Your task to perform on an android device: open app "PlayWell" (install if not already installed) Image 0: 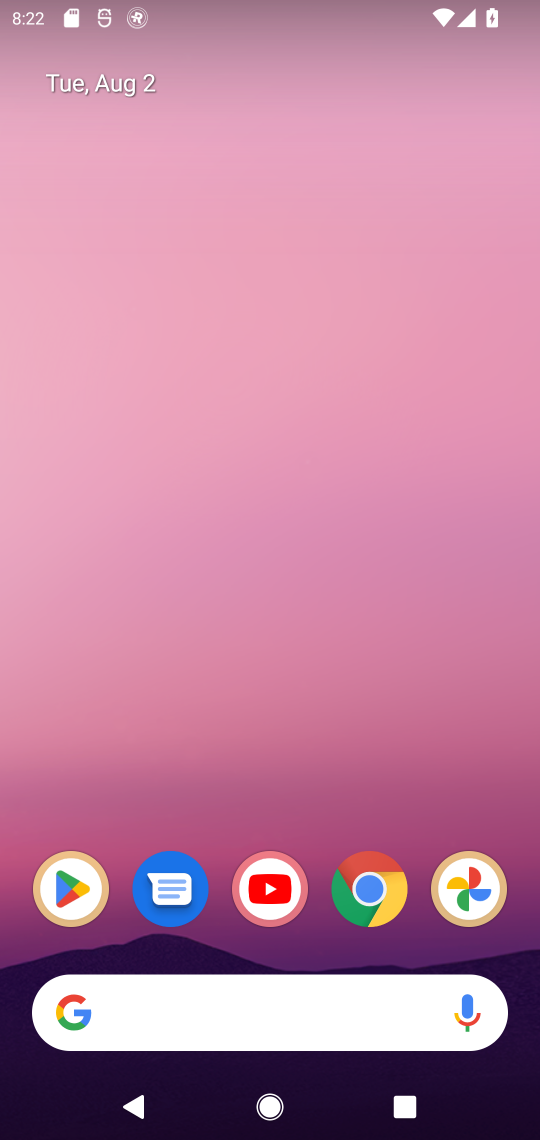
Step 0: click (76, 895)
Your task to perform on an android device: open app "PlayWell" (install if not already installed) Image 1: 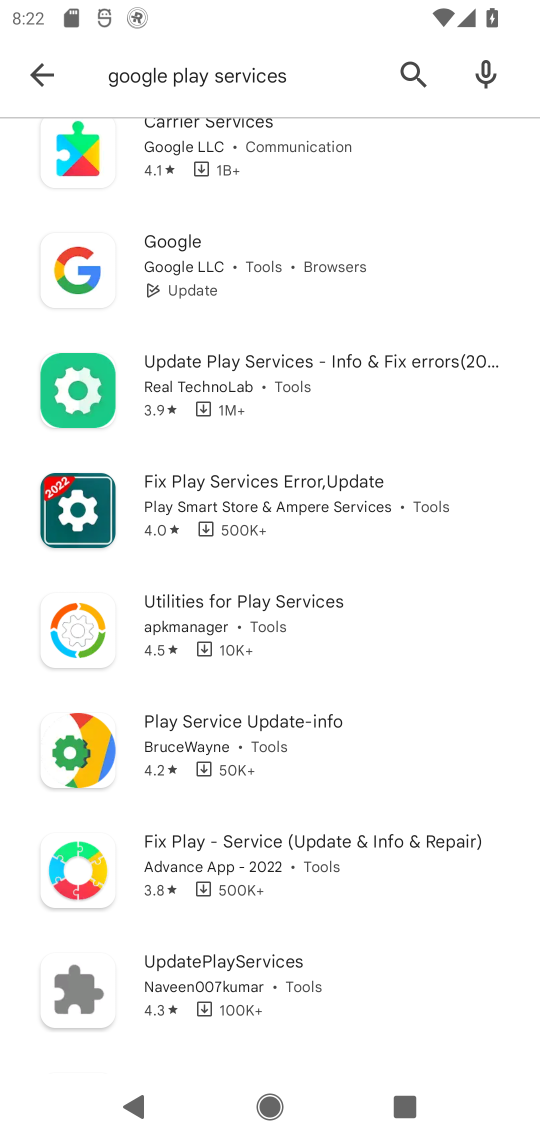
Step 1: click (410, 66)
Your task to perform on an android device: open app "PlayWell" (install if not already installed) Image 2: 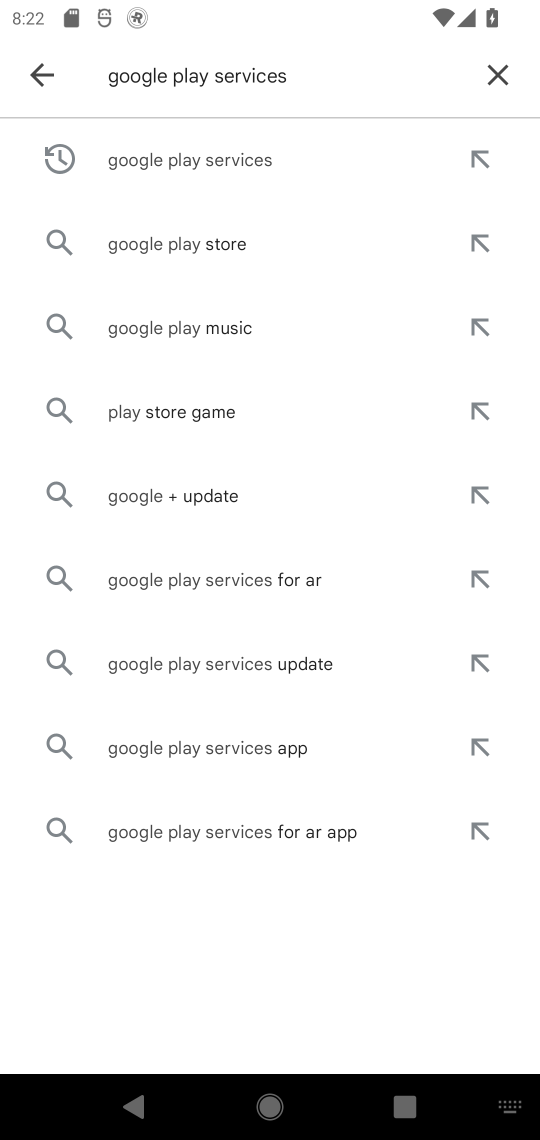
Step 2: click (503, 77)
Your task to perform on an android device: open app "PlayWell" (install if not already installed) Image 3: 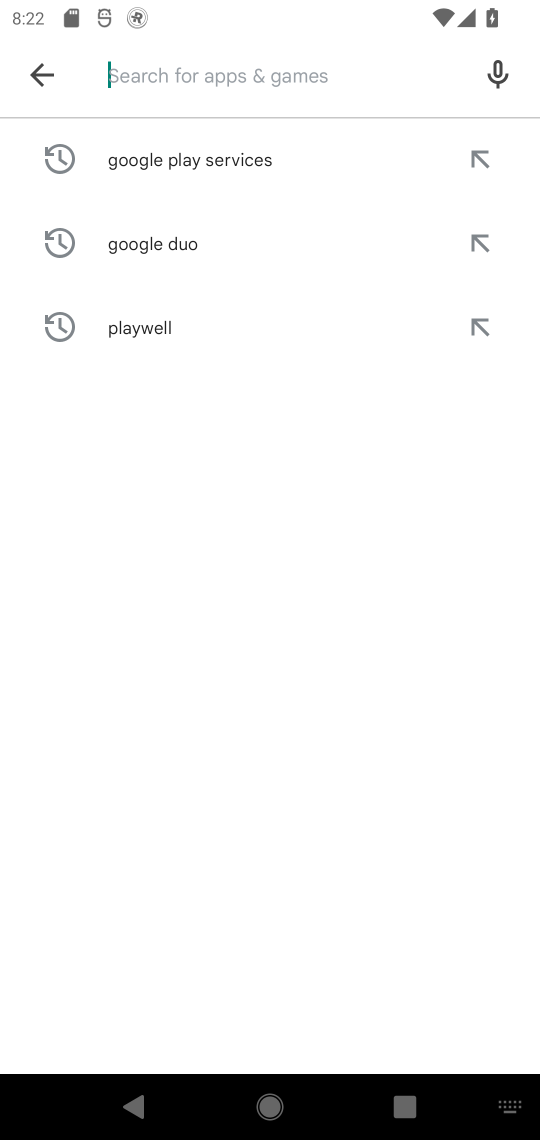
Step 3: type "PlayWell"
Your task to perform on an android device: open app "PlayWell" (install if not already installed) Image 4: 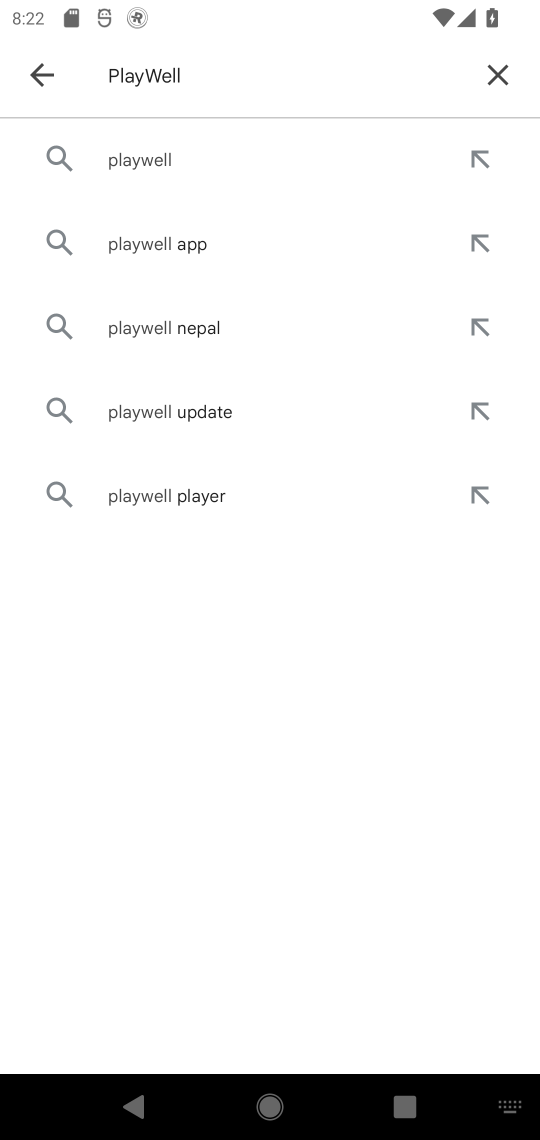
Step 4: click (161, 157)
Your task to perform on an android device: open app "PlayWell" (install if not already installed) Image 5: 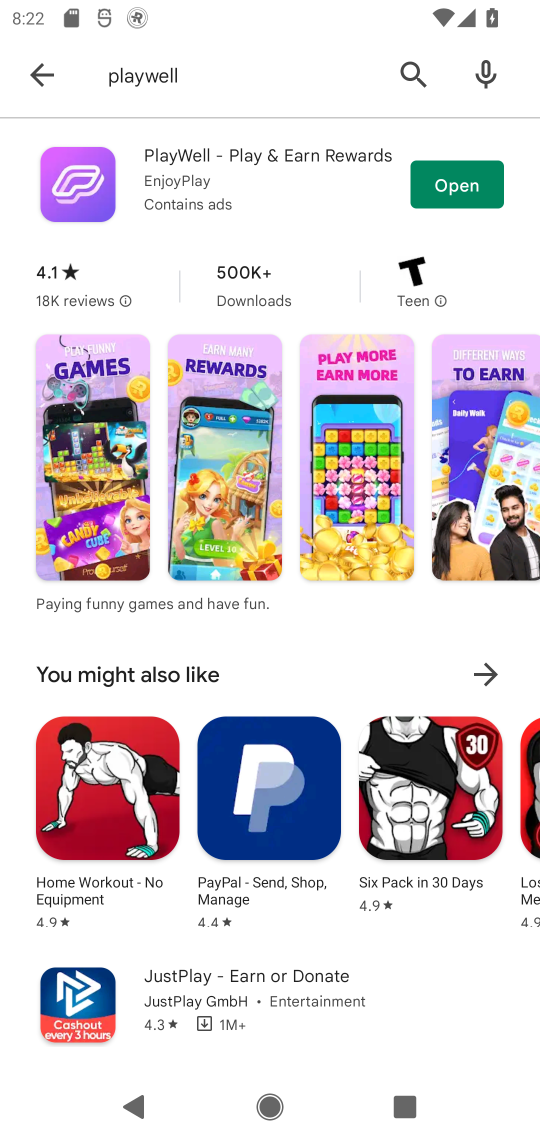
Step 5: click (447, 185)
Your task to perform on an android device: open app "PlayWell" (install if not already installed) Image 6: 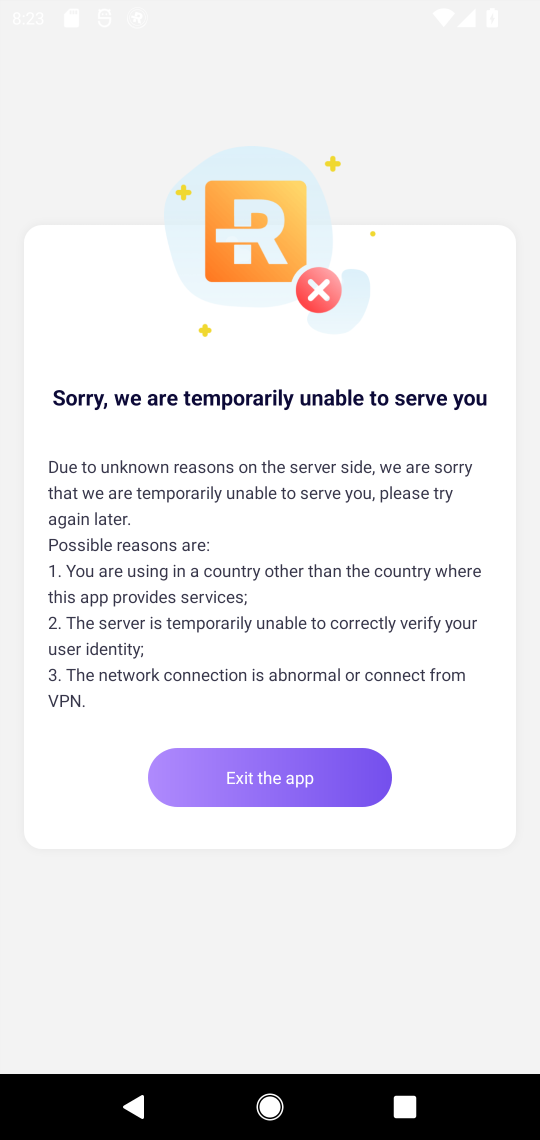
Step 6: task complete